Your task to perform on an android device: turn on the 24-hour format for clock Image 0: 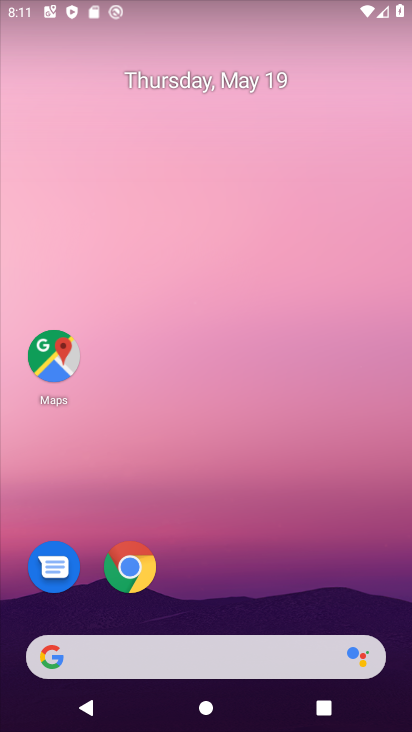
Step 0: drag from (218, 620) to (261, 194)
Your task to perform on an android device: turn on the 24-hour format for clock Image 1: 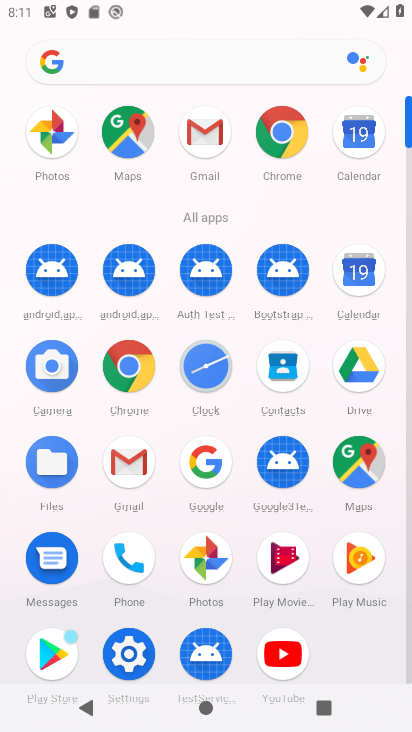
Step 1: click (144, 653)
Your task to perform on an android device: turn on the 24-hour format for clock Image 2: 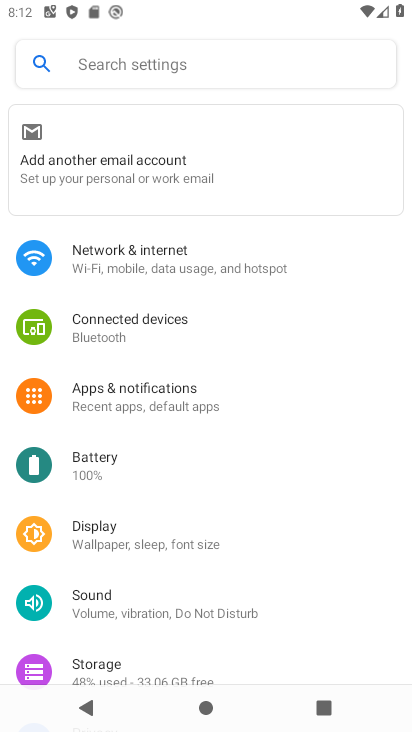
Step 2: drag from (144, 544) to (227, 262)
Your task to perform on an android device: turn on the 24-hour format for clock Image 3: 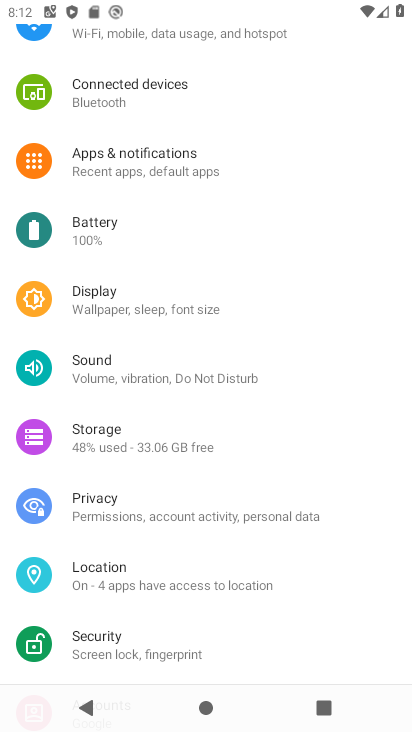
Step 3: drag from (198, 602) to (242, 314)
Your task to perform on an android device: turn on the 24-hour format for clock Image 4: 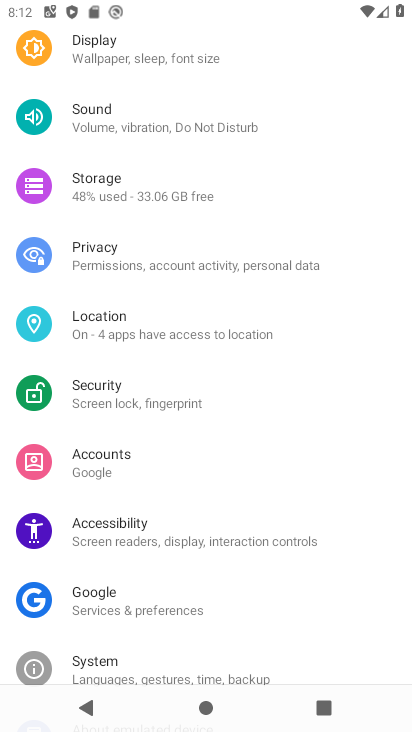
Step 4: drag from (134, 635) to (186, 402)
Your task to perform on an android device: turn on the 24-hour format for clock Image 5: 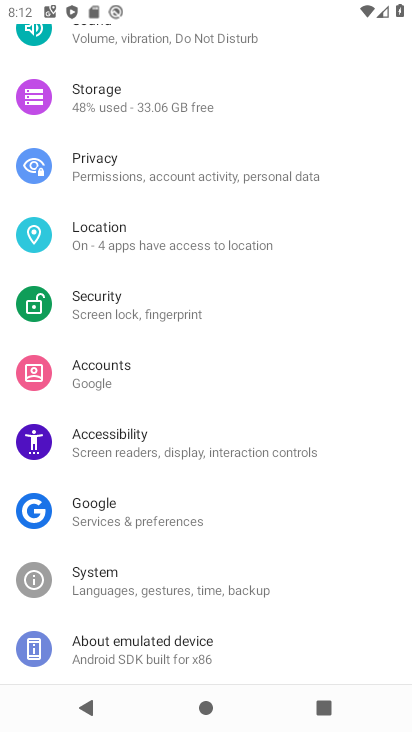
Step 5: click (129, 581)
Your task to perform on an android device: turn on the 24-hour format for clock Image 6: 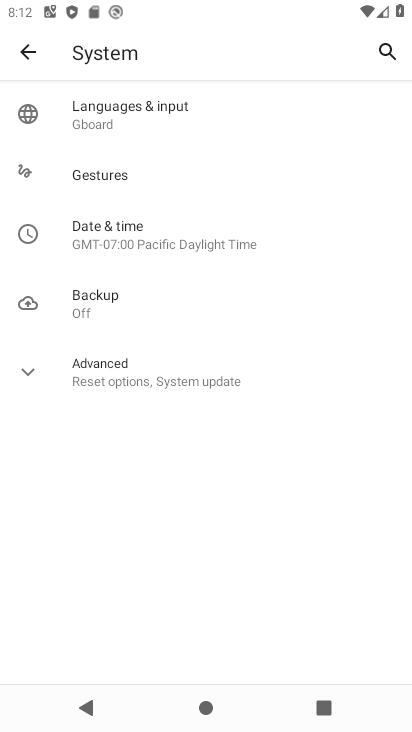
Step 6: click (122, 252)
Your task to perform on an android device: turn on the 24-hour format for clock Image 7: 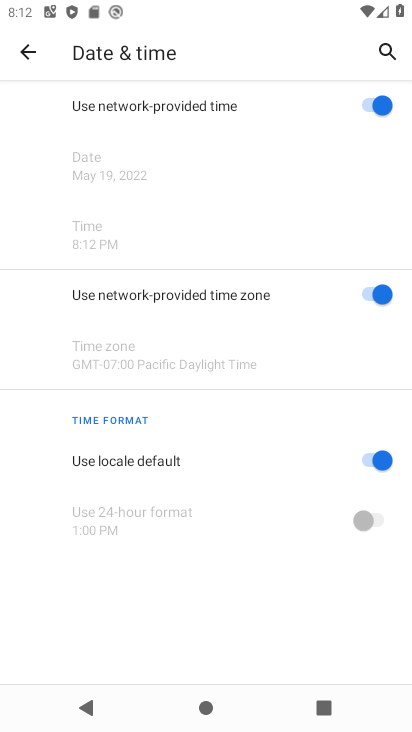
Step 7: click (370, 456)
Your task to perform on an android device: turn on the 24-hour format for clock Image 8: 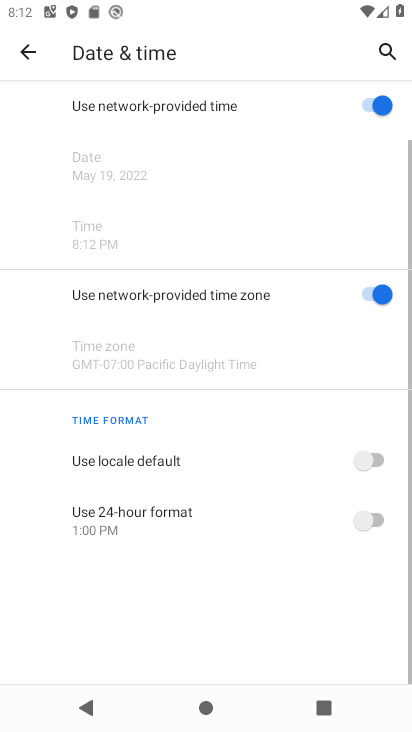
Step 8: click (382, 514)
Your task to perform on an android device: turn on the 24-hour format for clock Image 9: 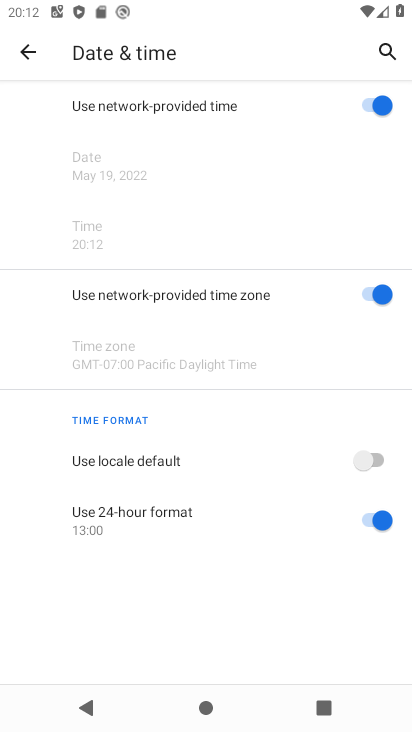
Step 9: task complete